Your task to perform on an android device: install app "Life360: Find Family & Friends" Image 0: 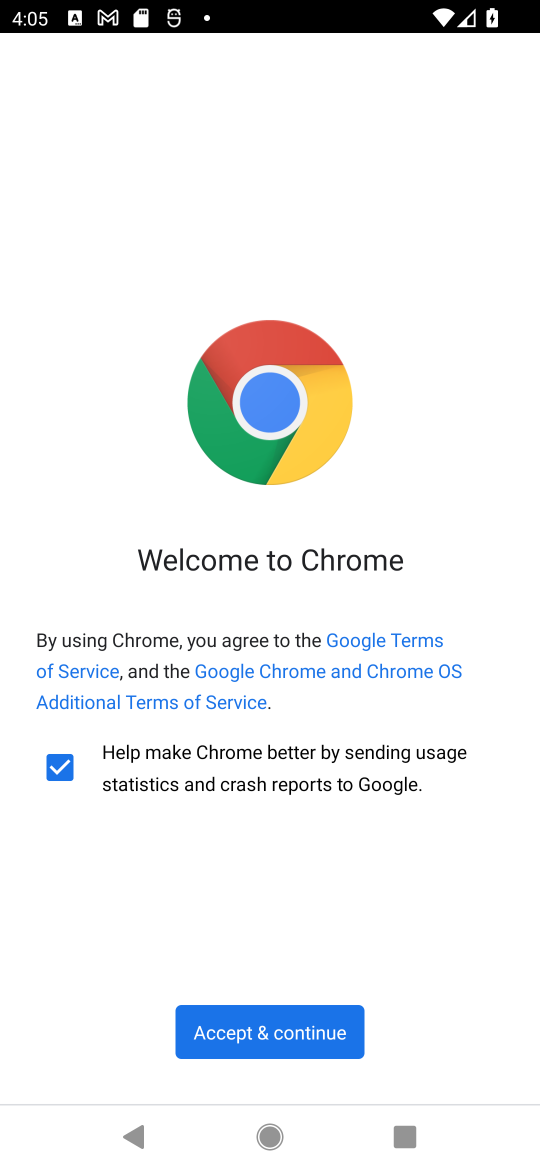
Step 0: press home button
Your task to perform on an android device: install app "Life360: Find Family & Friends" Image 1: 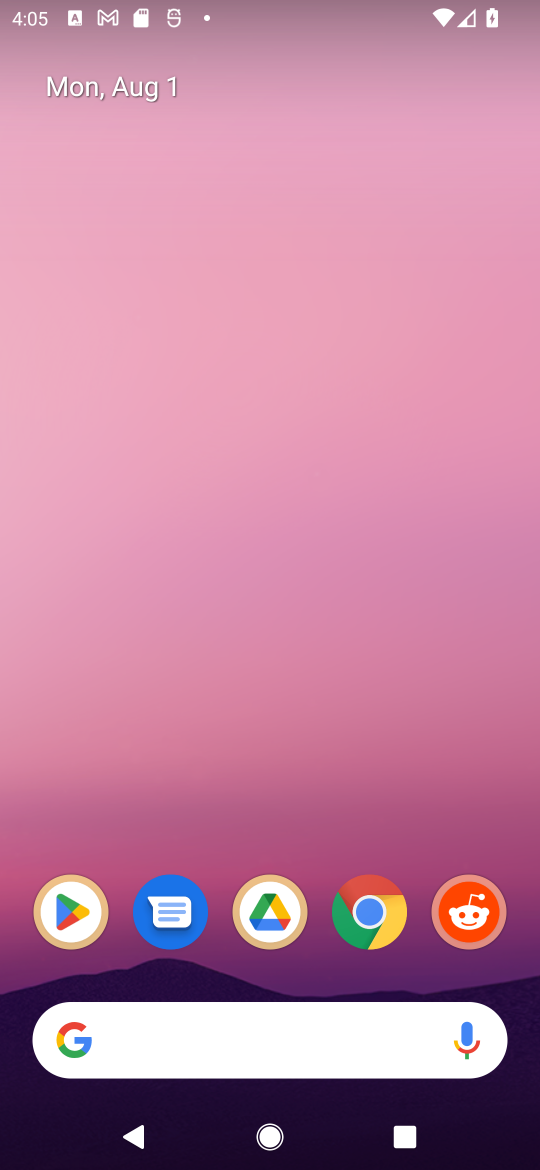
Step 1: click (53, 909)
Your task to perform on an android device: install app "Life360: Find Family & Friends" Image 2: 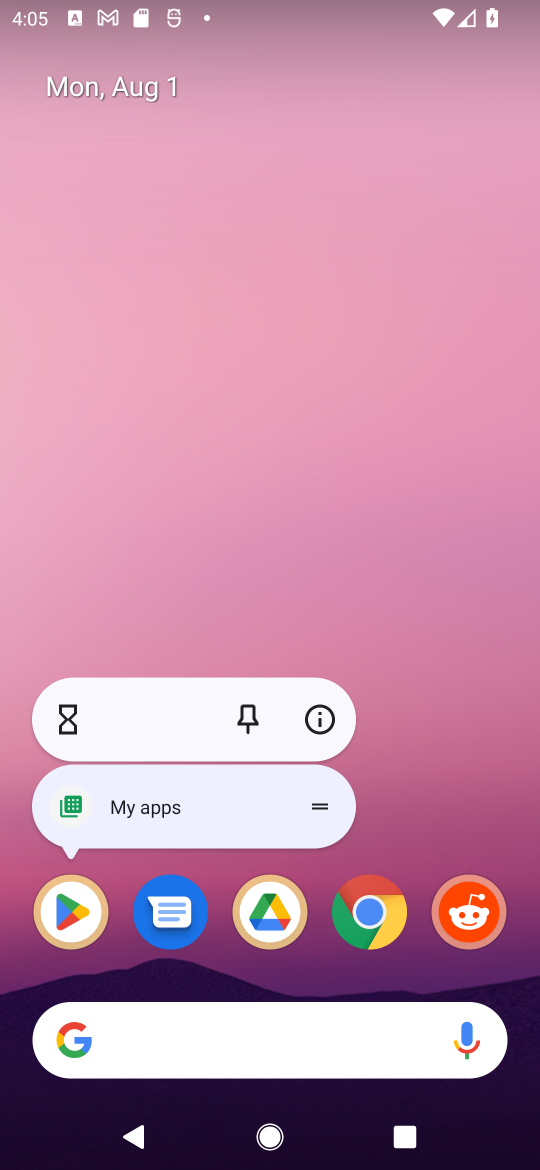
Step 2: click (62, 929)
Your task to perform on an android device: install app "Life360: Find Family & Friends" Image 3: 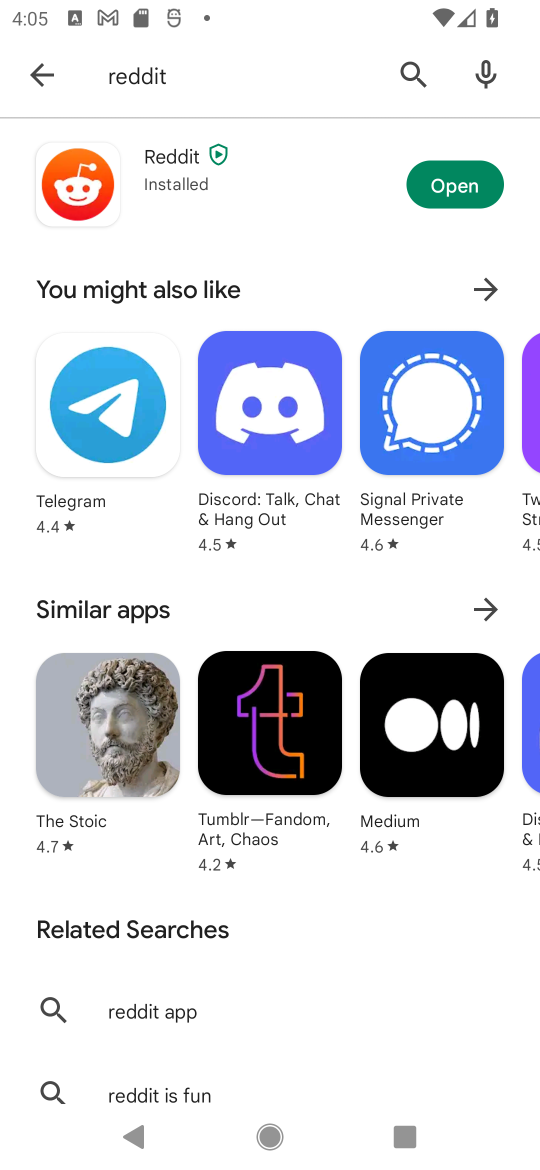
Step 3: click (421, 56)
Your task to perform on an android device: install app "Life360: Find Family & Friends" Image 4: 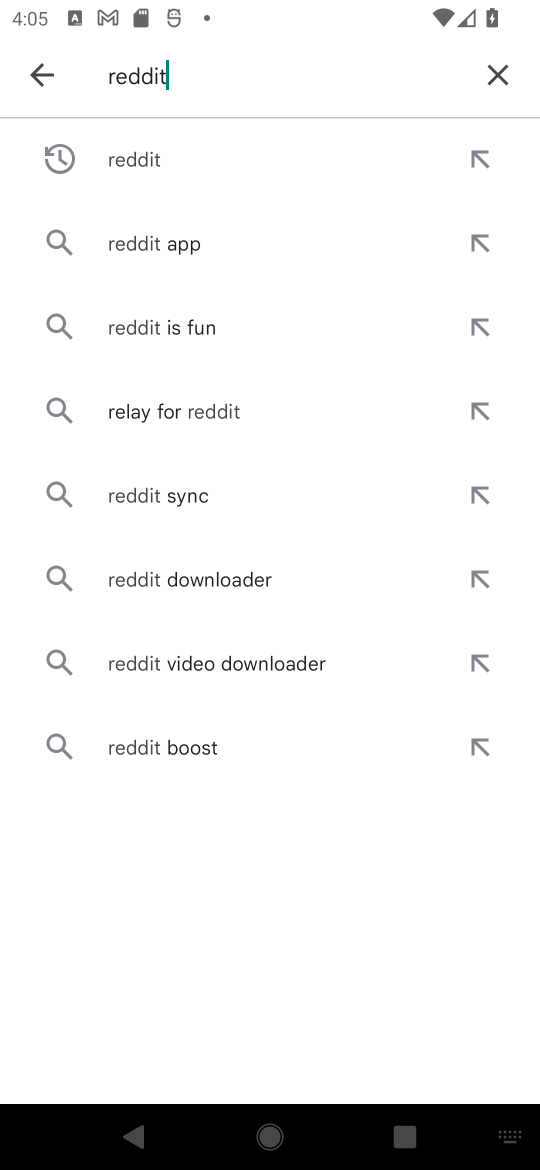
Step 4: click (479, 82)
Your task to perform on an android device: install app "Life360: Find Family & Friends" Image 5: 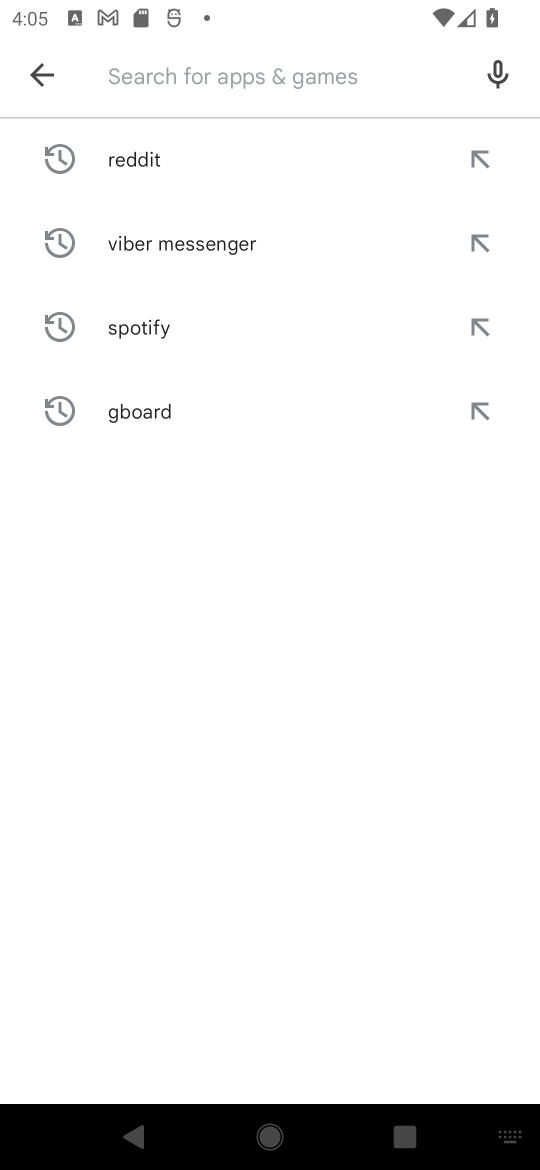
Step 5: click (181, 90)
Your task to perform on an android device: install app "Life360: Find Family & Friends" Image 6: 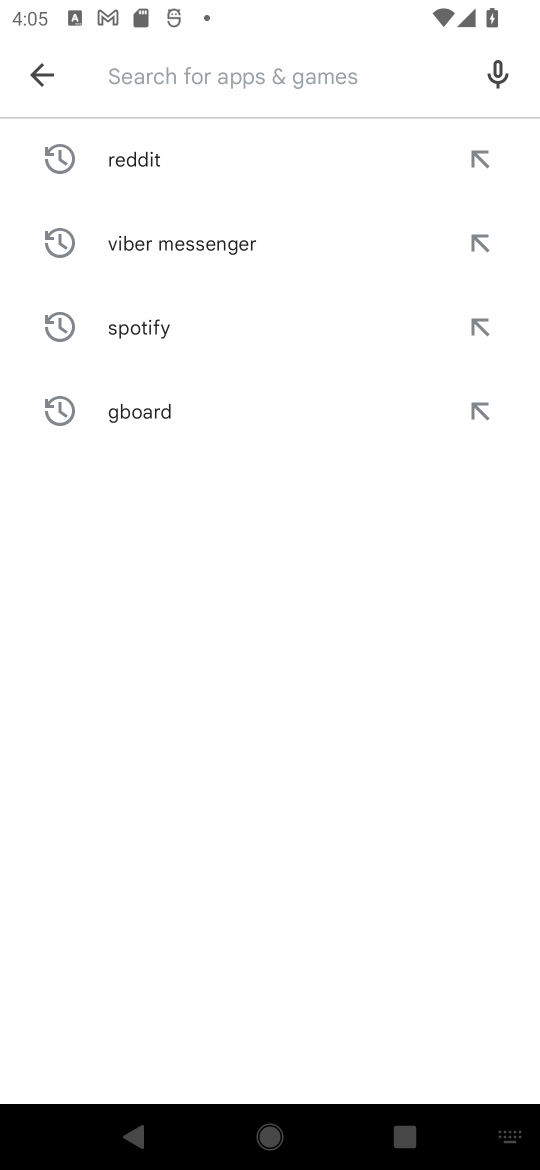
Step 6: type "Life360: Find Family & Friends"
Your task to perform on an android device: install app "Life360: Find Family & Friends" Image 7: 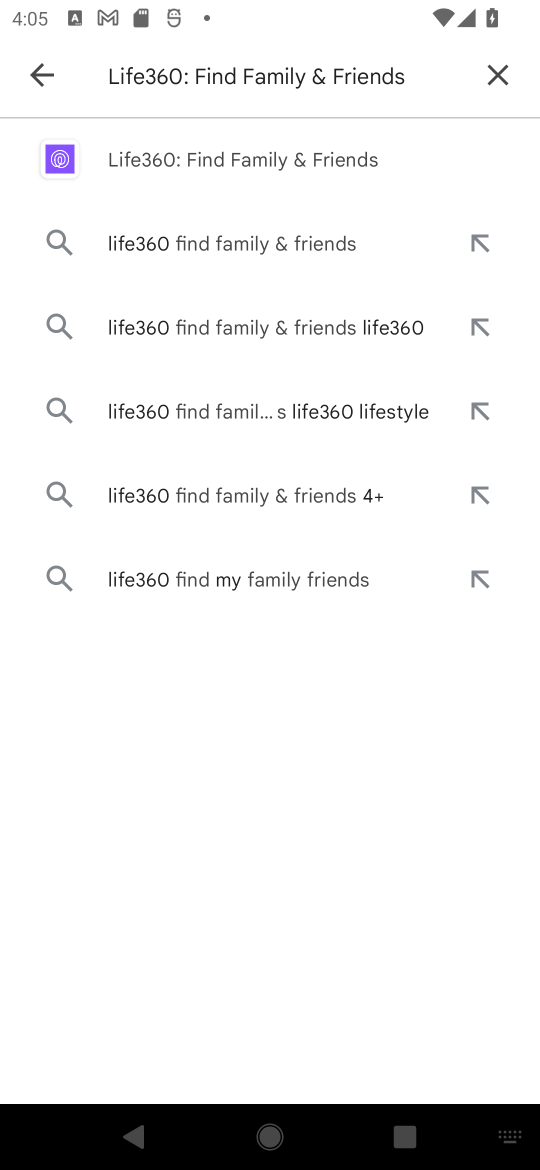
Step 7: click (172, 164)
Your task to perform on an android device: install app "Life360: Find Family & Friends" Image 8: 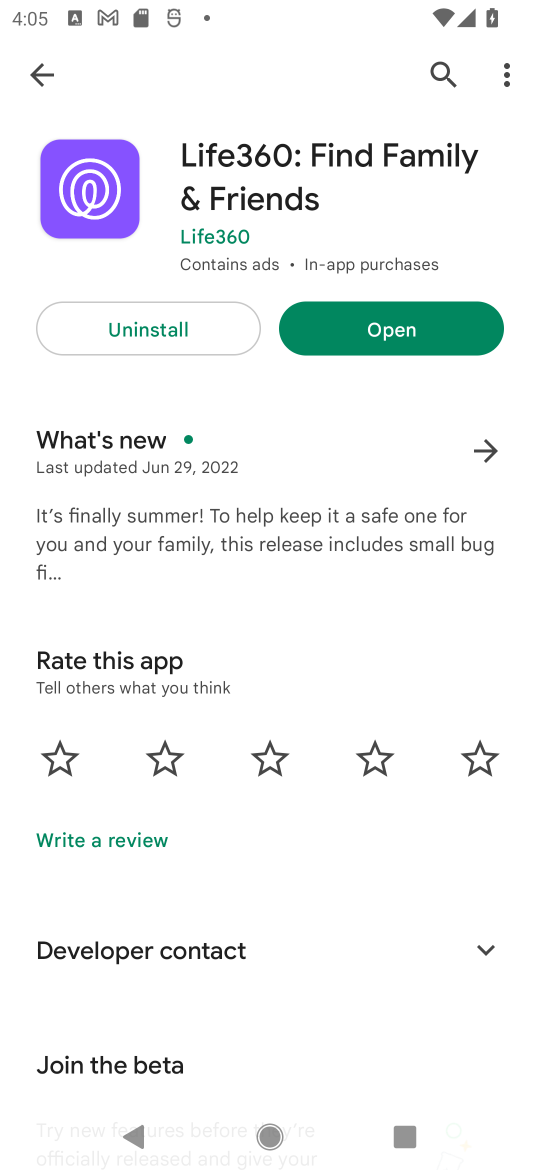
Step 8: task complete